Your task to perform on an android device: Search for the new Apple Watch on Best Buy Image 0: 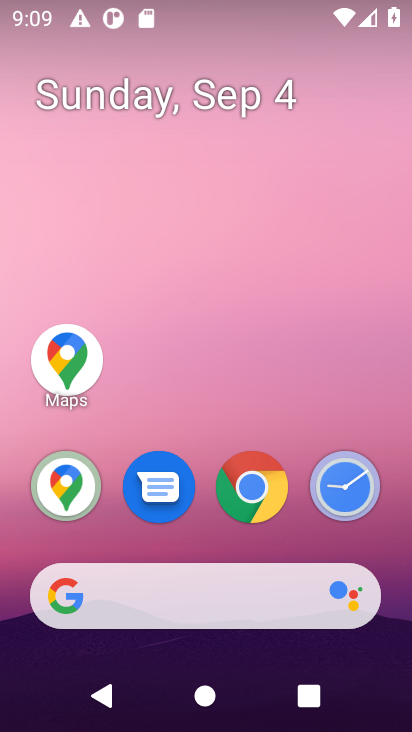
Step 0: click (281, 500)
Your task to perform on an android device: Search for the new Apple Watch on Best Buy Image 1: 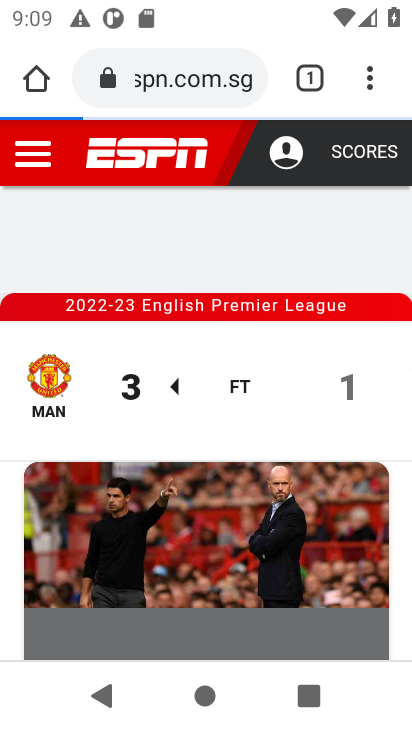
Step 1: task complete